Your task to perform on an android device: Go to Amazon Image 0: 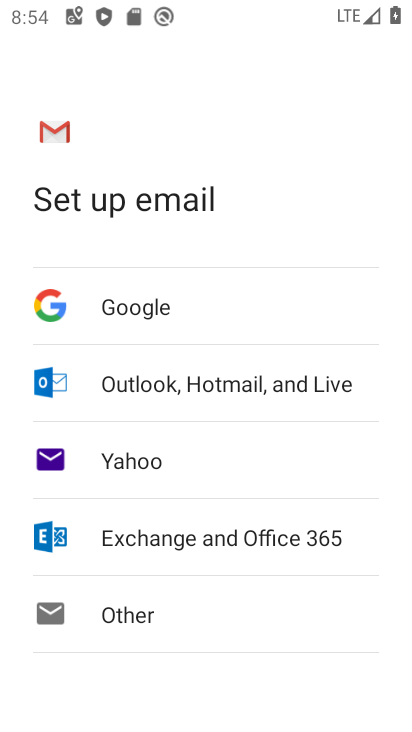
Step 0: press home button
Your task to perform on an android device: Go to Amazon Image 1: 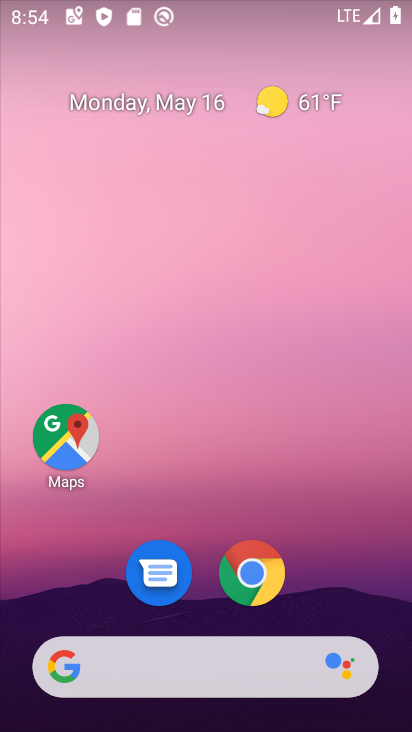
Step 1: click (259, 581)
Your task to perform on an android device: Go to Amazon Image 2: 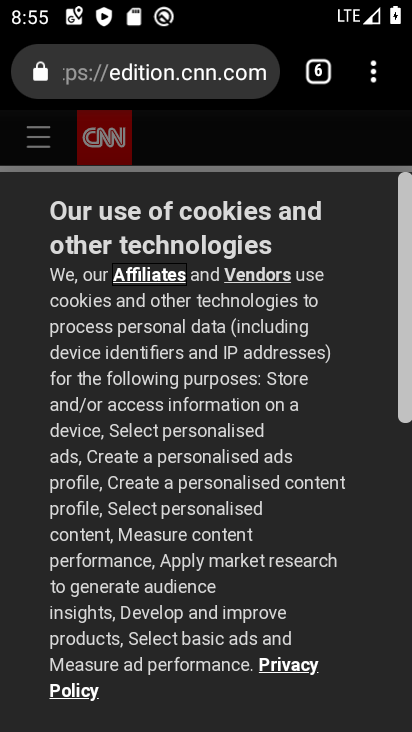
Step 2: click (376, 79)
Your task to perform on an android device: Go to Amazon Image 3: 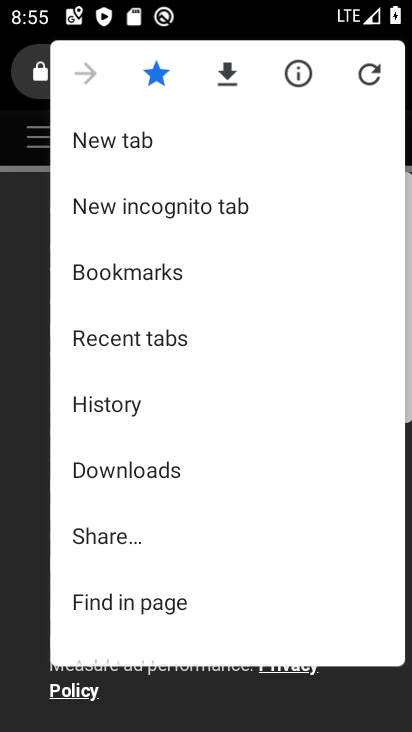
Step 3: click (123, 134)
Your task to perform on an android device: Go to Amazon Image 4: 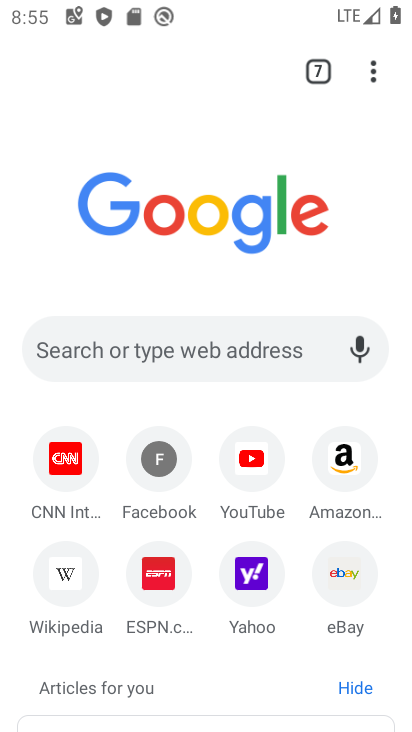
Step 4: click (185, 345)
Your task to perform on an android device: Go to Amazon Image 5: 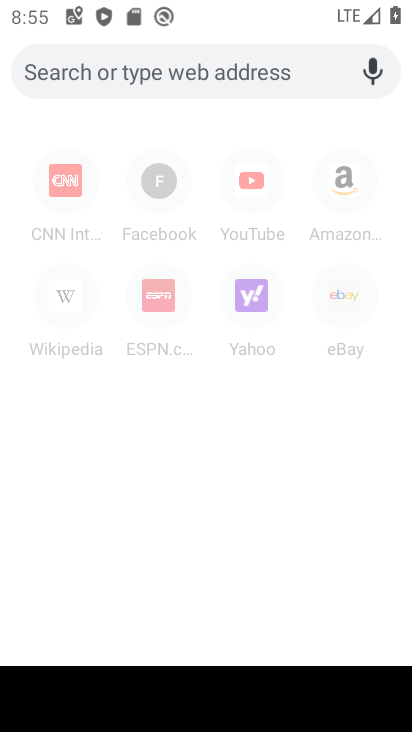
Step 5: type "Amazon"
Your task to perform on an android device: Go to Amazon Image 6: 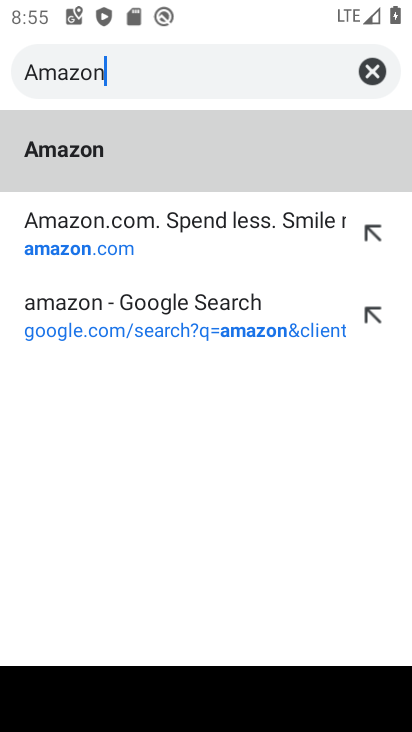
Step 6: click (91, 152)
Your task to perform on an android device: Go to Amazon Image 7: 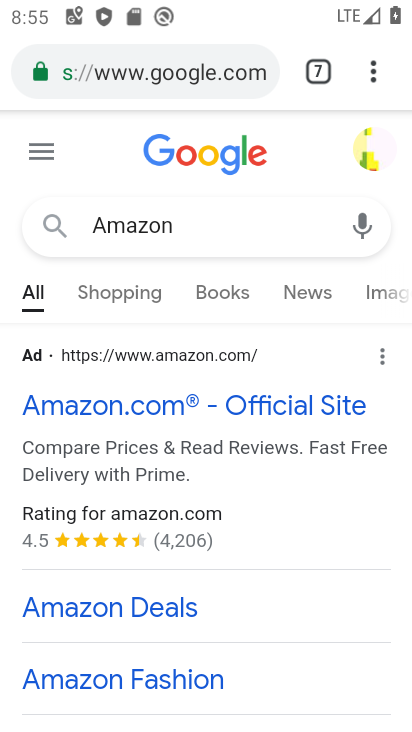
Step 7: click (141, 402)
Your task to perform on an android device: Go to Amazon Image 8: 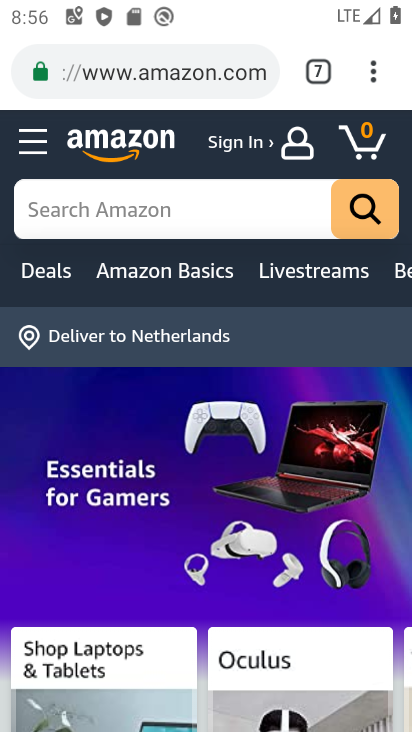
Step 8: task complete